Your task to perform on an android device: What's on the menu at Panera? Image 0: 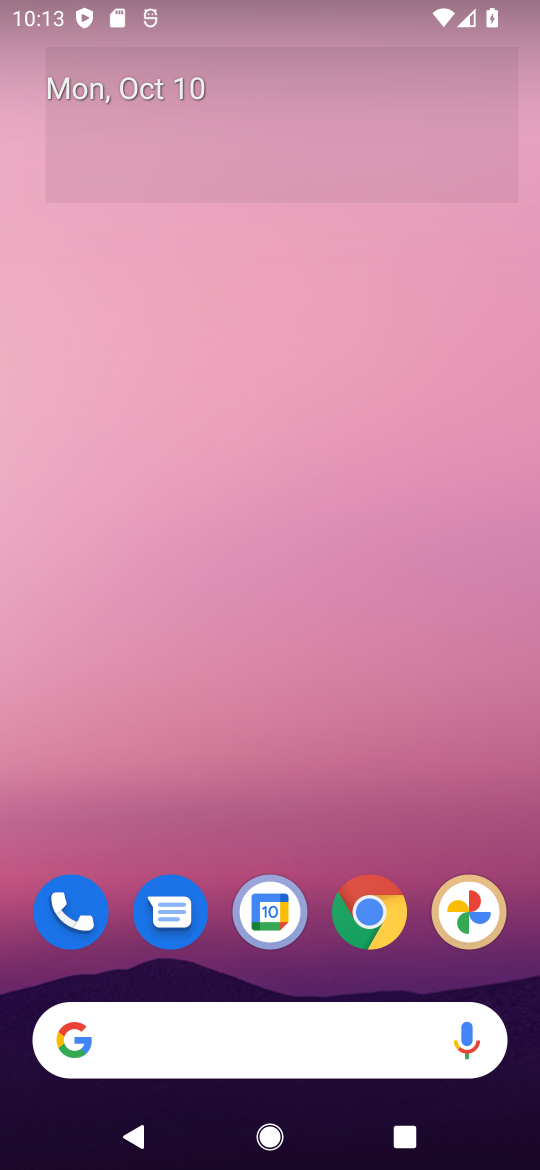
Step 0: click (74, 1038)
Your task to perform on an android device: What's on the menu at Panera? Image 1: 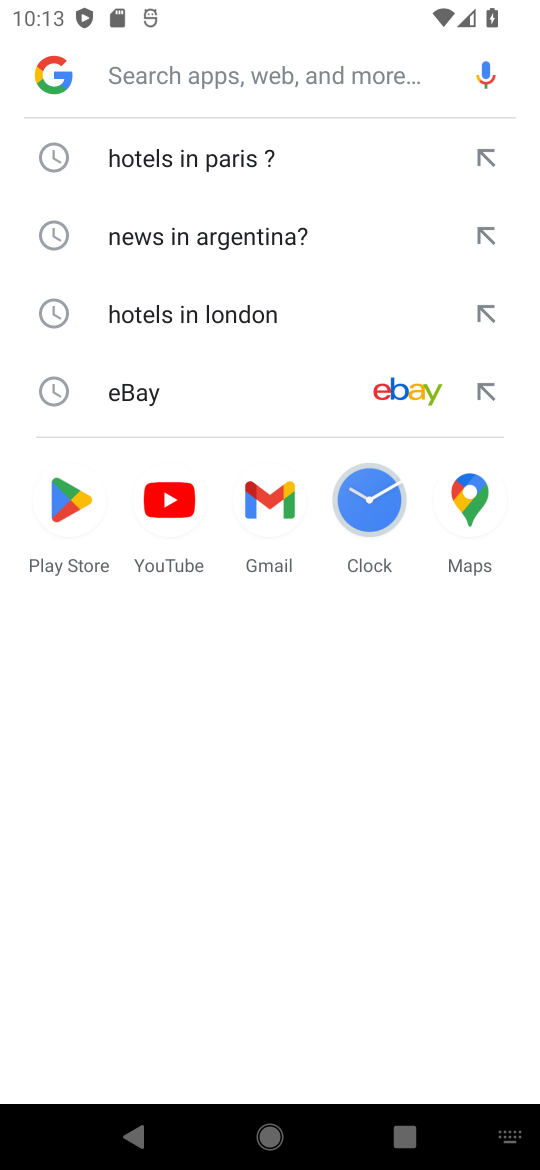
Step 1: click (344, 83)
Your task to perform on an android device: What's on the menu at Panera? Image 2: 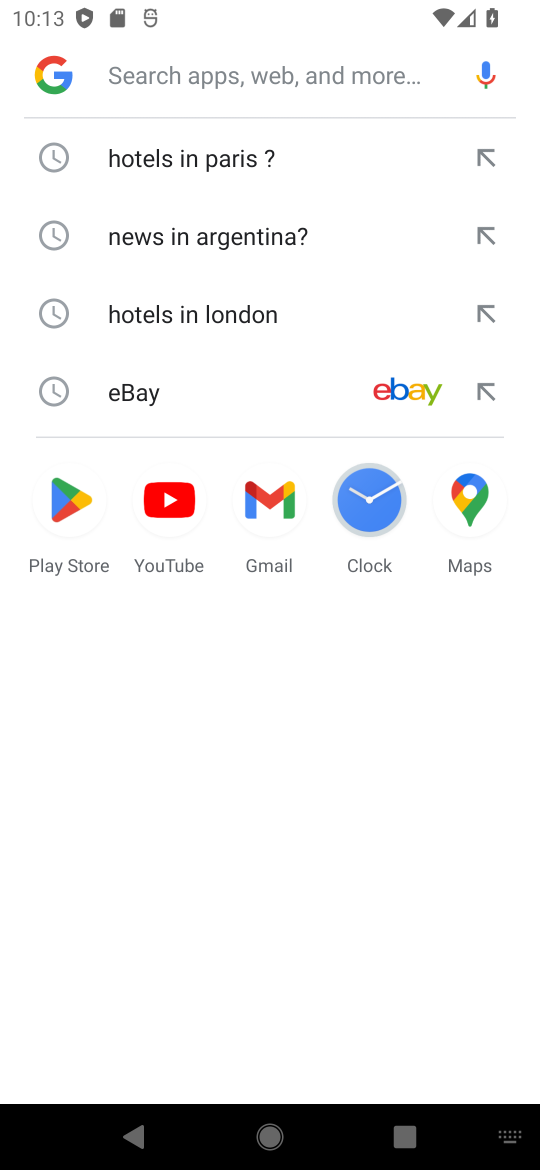
Step 2: type "menu at panera?"
Your task to perform on an android device: What's on the menu at Panera? Image 3: 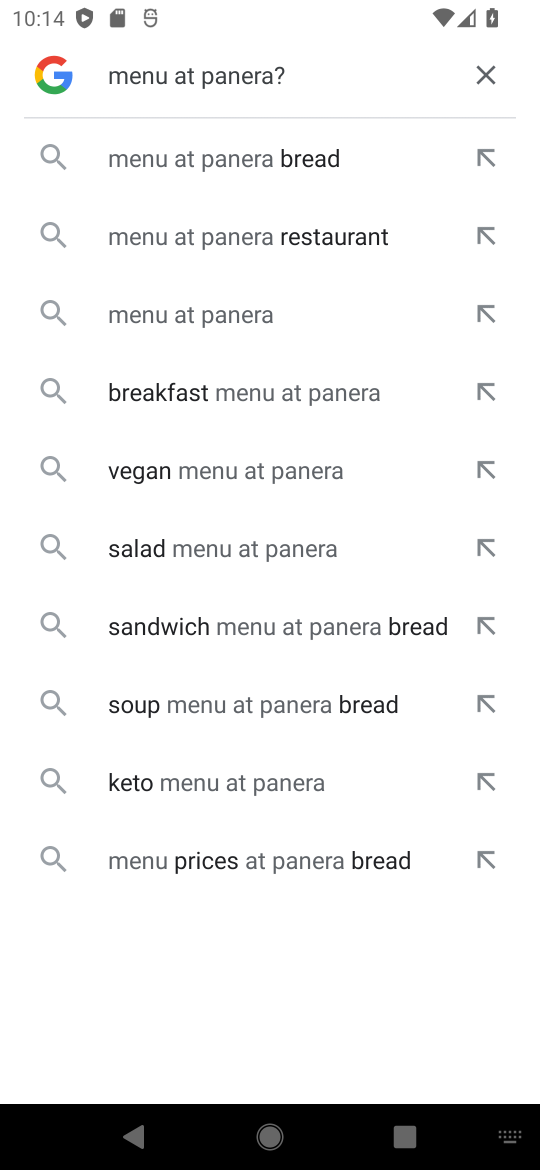
Step 3: click (153, 313)
Your task to perform on an android device: What's on the menu at Panera? Image 4: 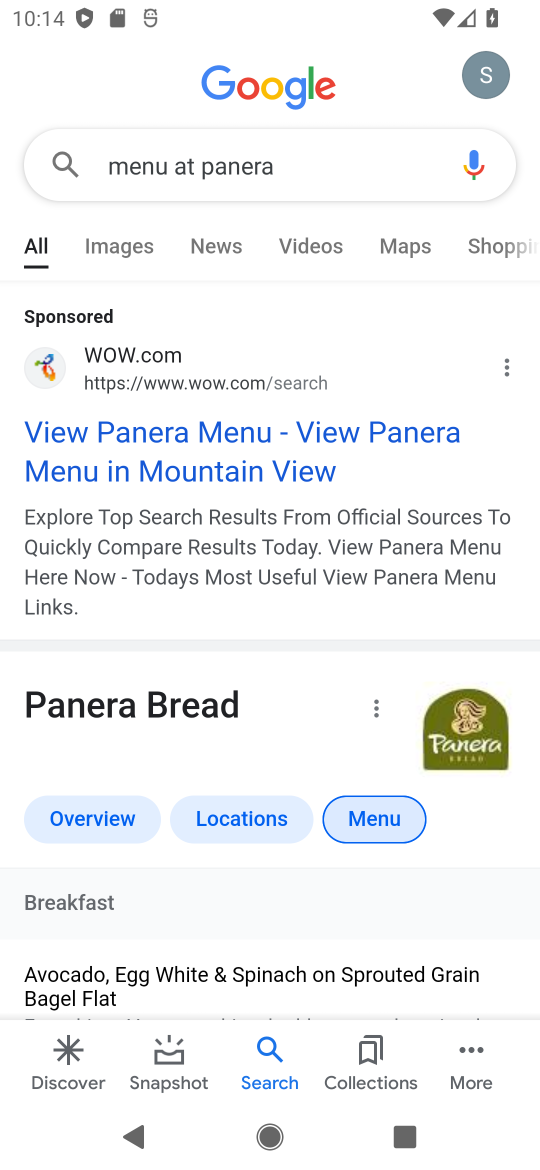
Step 4: task complete